Your task to perform on an android device: Open my contact list Image 0: 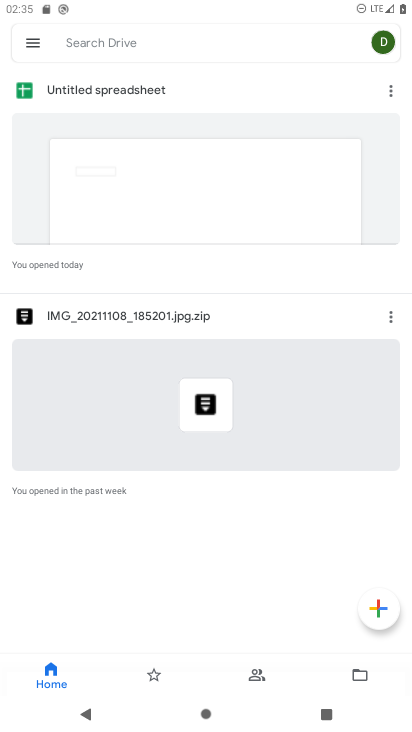
Step 0: press home button
Your task to perform on an android device: Open my contact list Image 1: 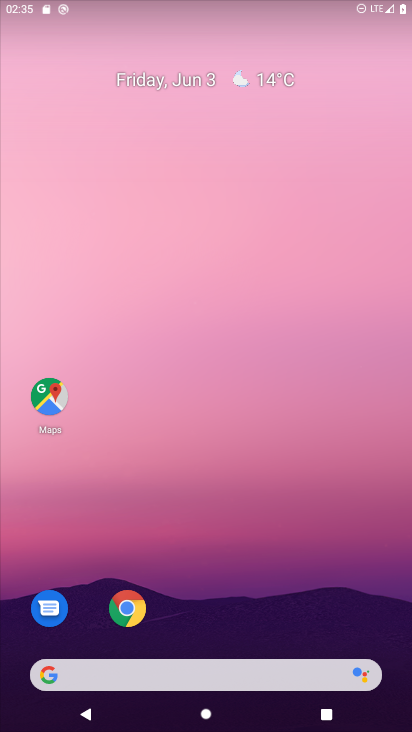
Step 1: drag from (296, 553) to (255, 125)
Your task to perform on an android device: Open my contact list Image 2: 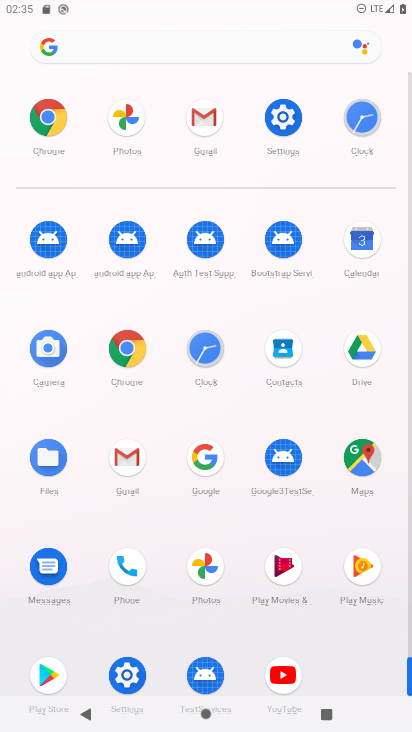
Step 2: click (295, 347)
Your task to perform on an android device: Open my contact list Image 3: 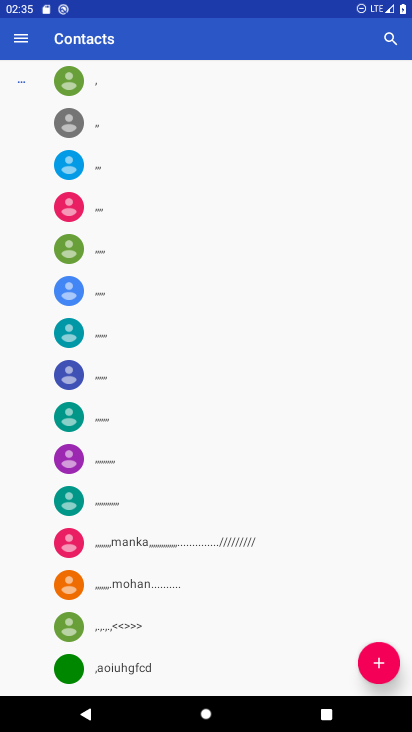
Step 3: click (382, 672)
Your task to perform on an android device: Open my contact list Image 4: 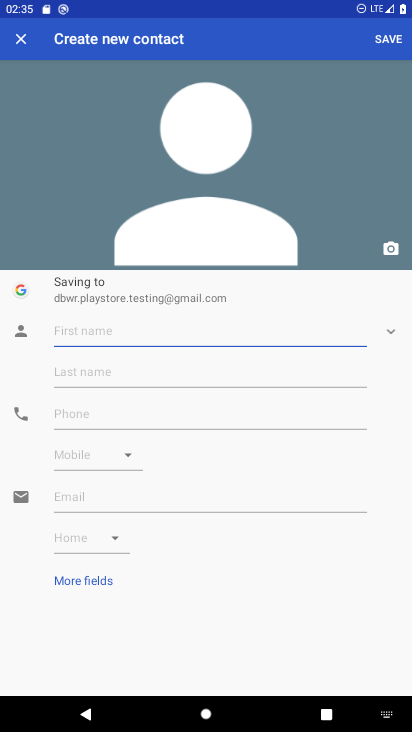
Step 4: click (27, 42)
Your task to perform on an android device: Open my contact list Image 5: 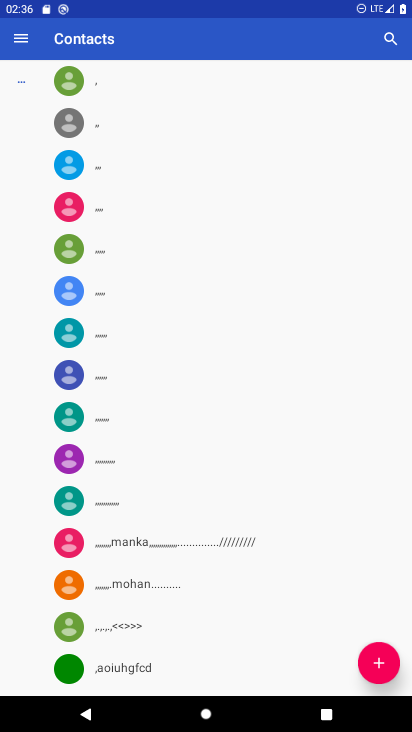
Step 5: task complete